Your task to perform on an android device: see sites visited before in the chrome app Image 0: 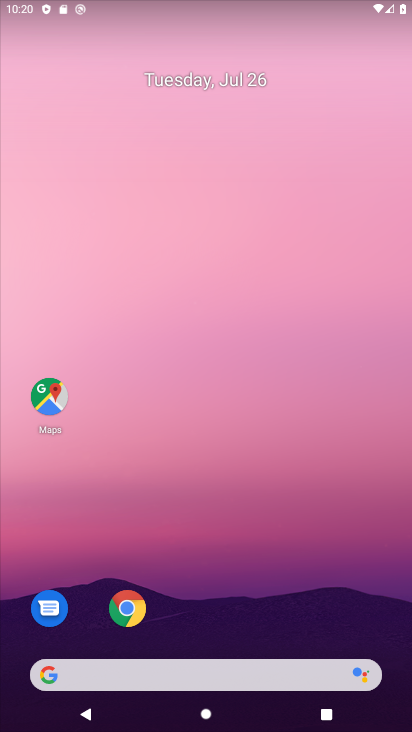
Step 0: click (287, 70)
Your task to perform on an android device: see sites visited before in the chrome app Image 1: 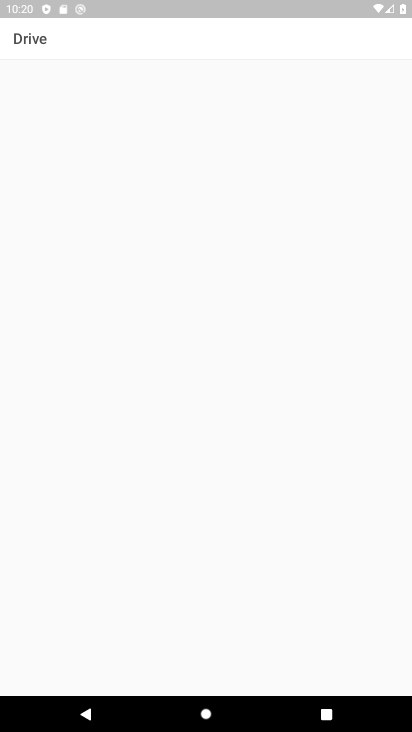
Step 1: press home button
Your task to perform on an android device: see sites visited before in the chrome app Image 2: 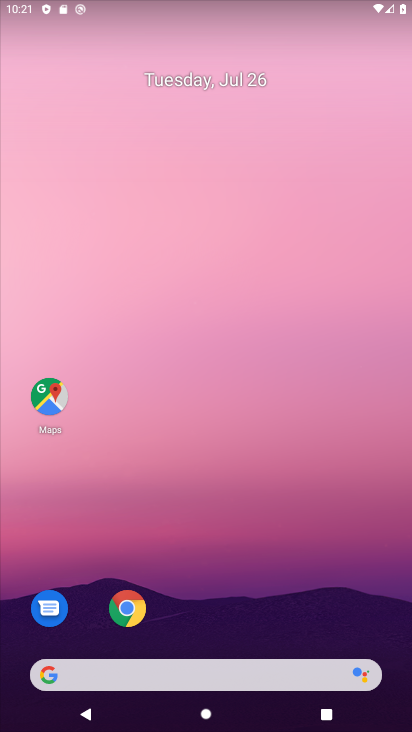
Step 2: drag from (270, 618) to (222, 85)
Your task to perform on an android device: see sites visited before in the chrome app Image 3: 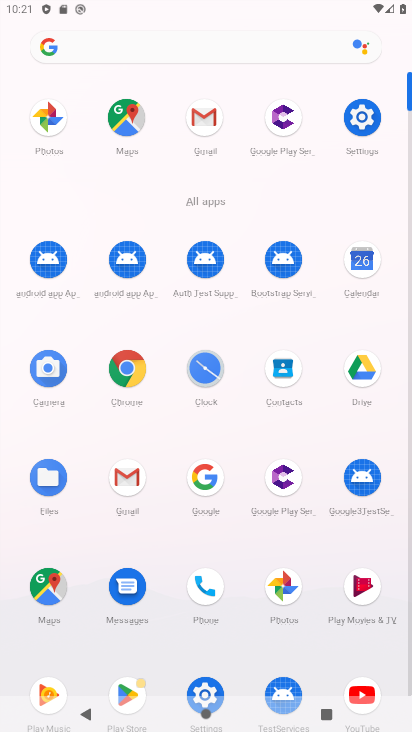
Step 3: click (143, 367)
Your task to perform on an android device: see sites visited before in the chrome app Image 4: 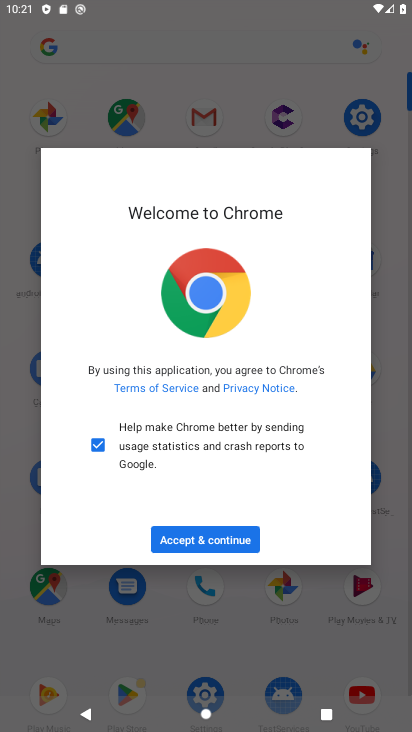
Step 4: click (247, 551)
Your task to perform on an android device: see sites visited before in the chrome app Image 5: 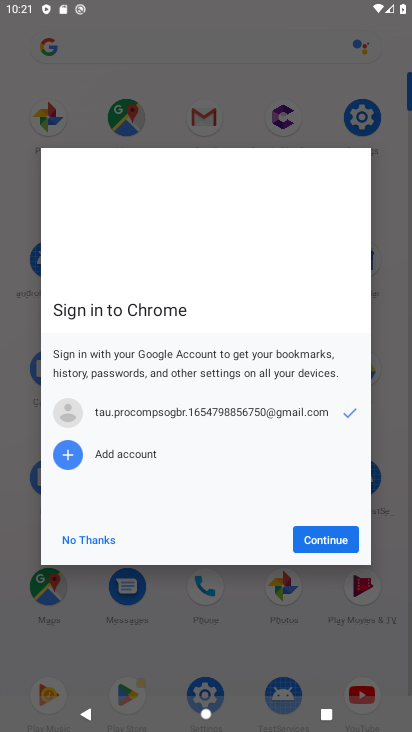
Step 5: click (356, 540)
Your task to perform on an android device: see sites visited before in the chrome app Image 6: 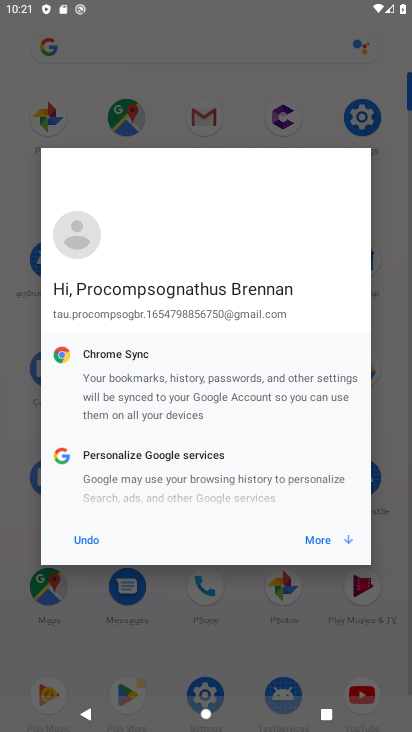
Step 6: click (356, 540)
Your task to perform on an android device: see sites visited before in the chrome app Image 7: 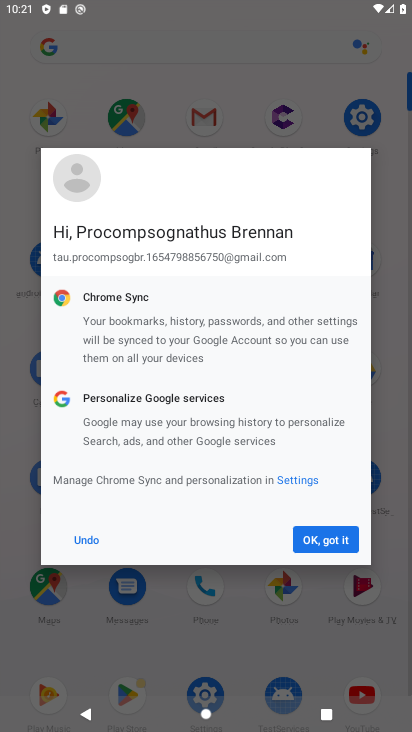
Step 7: click (356, 540)
Your task to perform on an android device: see sites visited before in the chrome app Image 8: 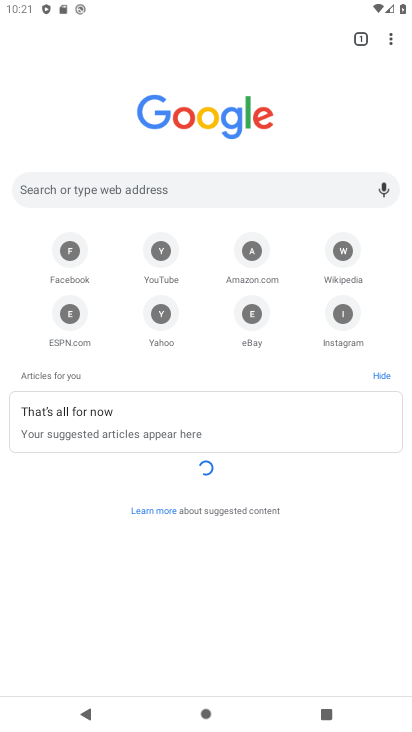
Step 8: task complete